Your task to perform on an android device: When is my next meeting? Image 0: 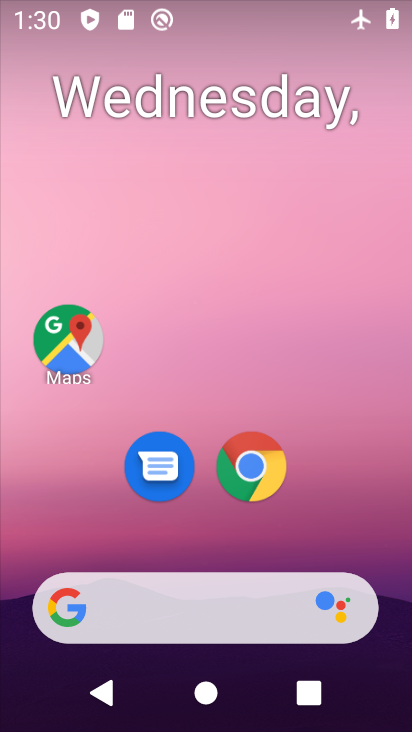
Step 0: drag from (171, 599) to (245, 115)
Your task to perform on an android device: When is my next meeting? Image 1: 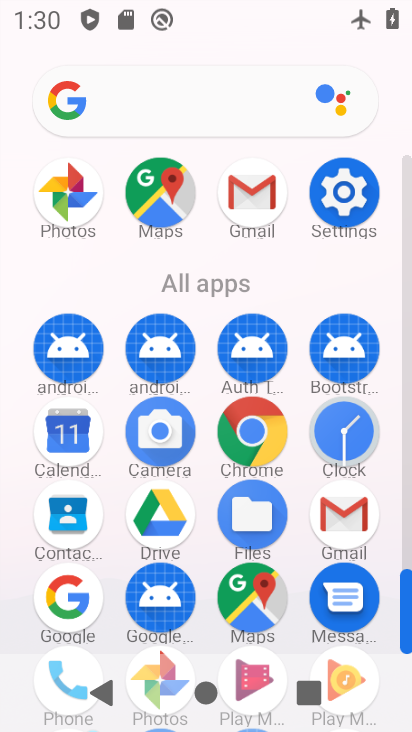
Step 1: drag from (196, 620) to (305, 306)
Your task to perform on an android device: When is my next meeting? Image 2: 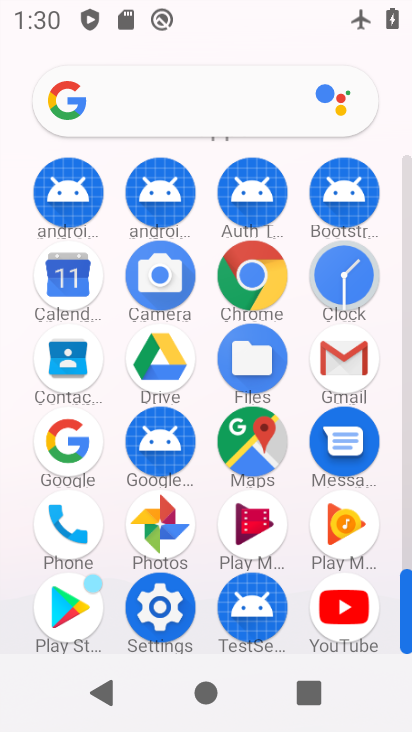
Step 2: click (73, 283)
Your task to perform on an android device: When is my next meeting? Image 3: 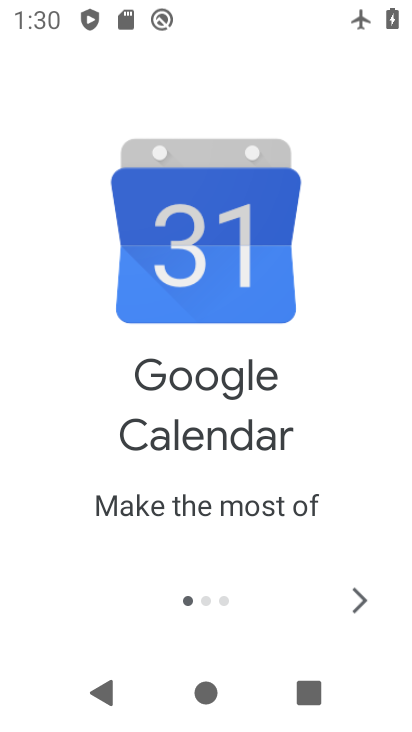
Step 3: click (360, 592)
Your task to perform on an android device: When is my next meeting? Image 4: 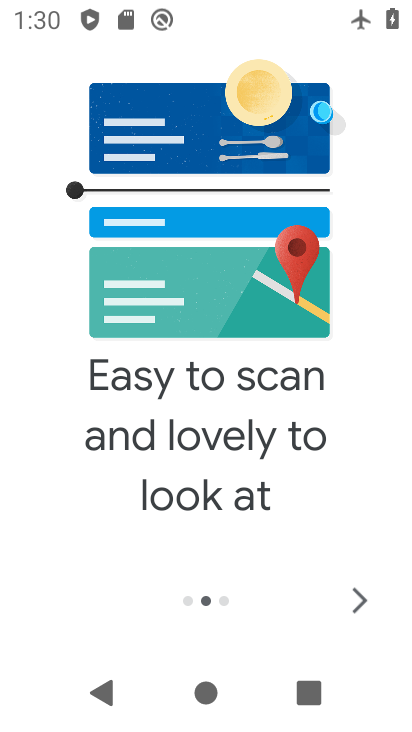
Step 4: click (360, 592)
Your task to perform on an android device: When is my next meeting? Image 5: 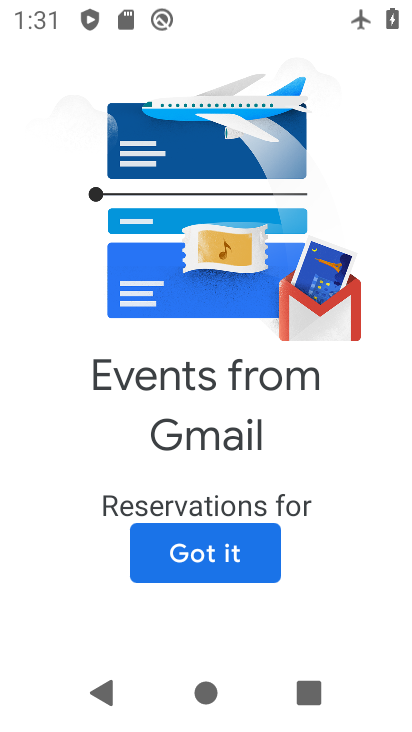
Step 5: click (245, 557)
Your task to perform on an android device: When is my next meeting? Image 6: 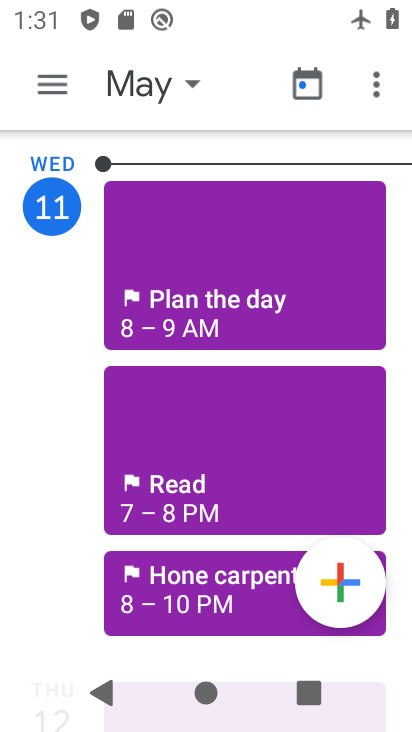
Step 6: click (148, 84)
Your task to perform on an android device: When is my next meeting? Image 7: 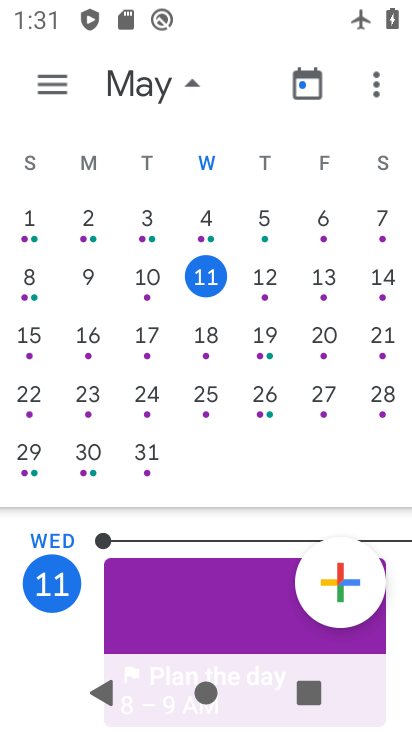
Step 7: click (52, 84)
Your task to perform on an android device: When is my next meeting? Image 8: 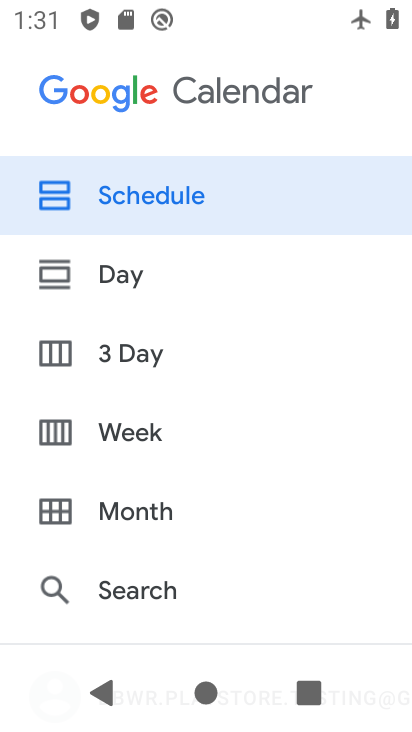
Step 8: click (139, 203)
Your task to perform on an android device: When is my next meeting? Image 9: 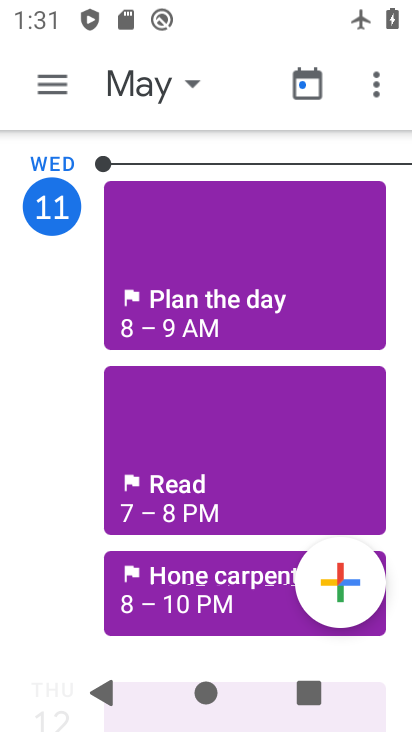
Step 9: click (239, 290)
Your task to perform on an android device: When is my next meeting? Image 10: 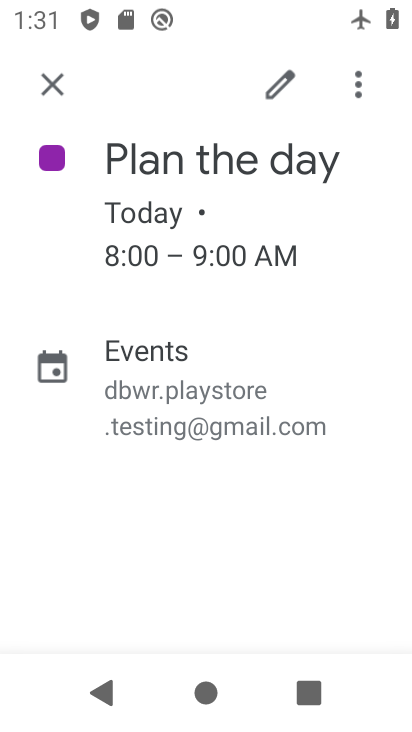
Step 10: task complete